Your task to perform on an android device: Search for vegetarian restaurants on Maps Image 0: 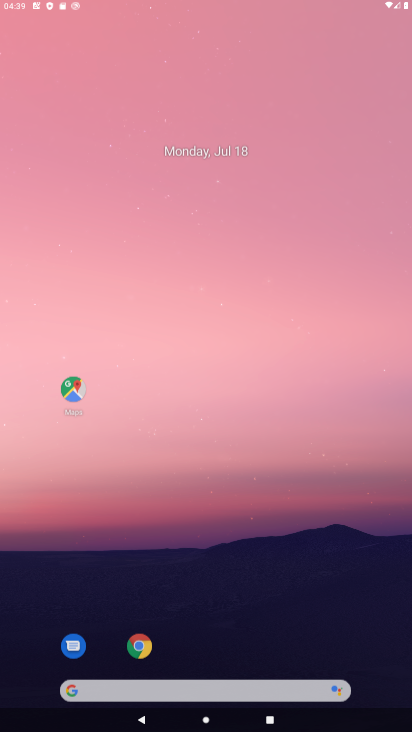
Step 0: press home button
Your task to perform on an android device: Search for vegetarian restaurants on Maps Image 1: 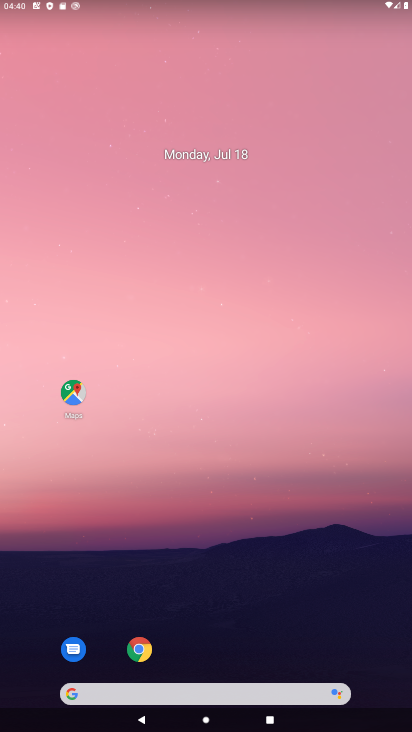
Step 1: click (72, 383)
Your task to perform on an android device: Search for vegetarian restaurants on Maps Image 2: 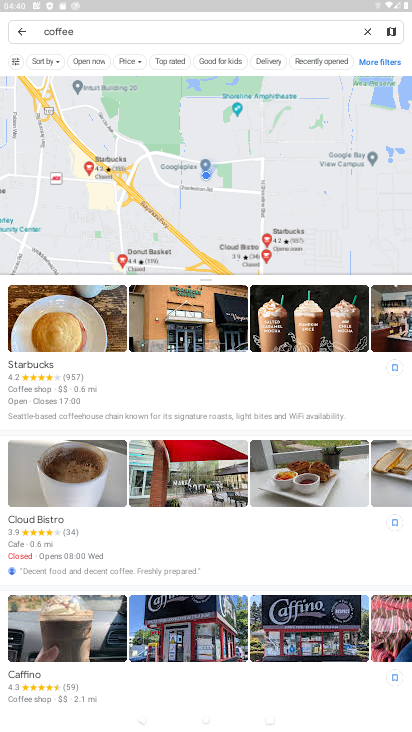
Step 2: click (365, 39)
Your task to perform on an android device: Search for vegetarian restaurants on Maps Image 3: 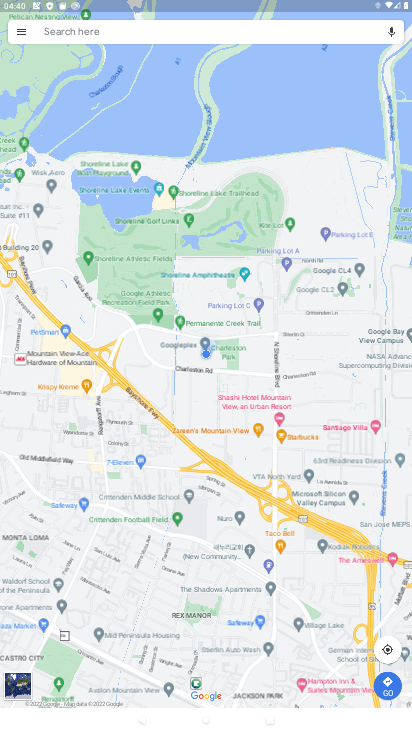
Step 3: click (234, 43)
Your task to perform on an android device: Search for vegetarian restaurants on Maps Image 4: 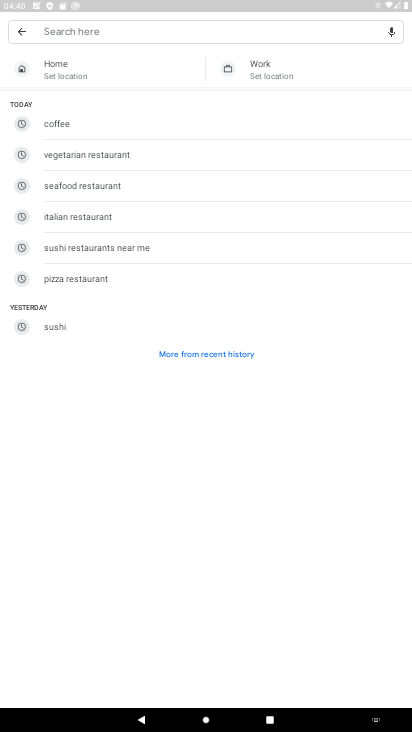
Step 4: type "vege"
Your task to perform on an android device: Search for vegetarian restaurants on Maps Image 5: 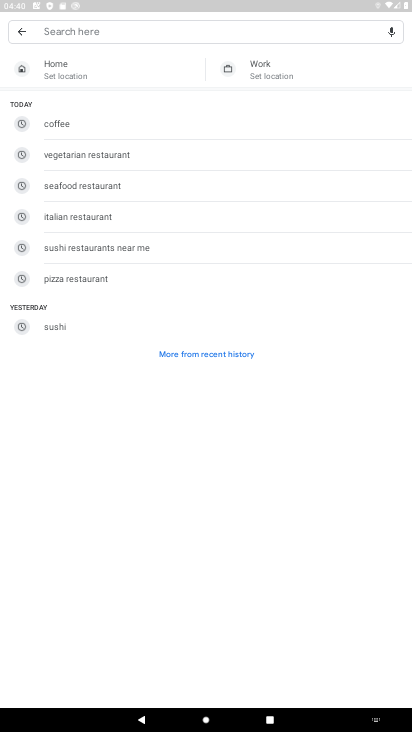
Step 5: click (193, 158)
Your task to perform on an android device: Search for vegetarian restaurants on Maps Image 6: 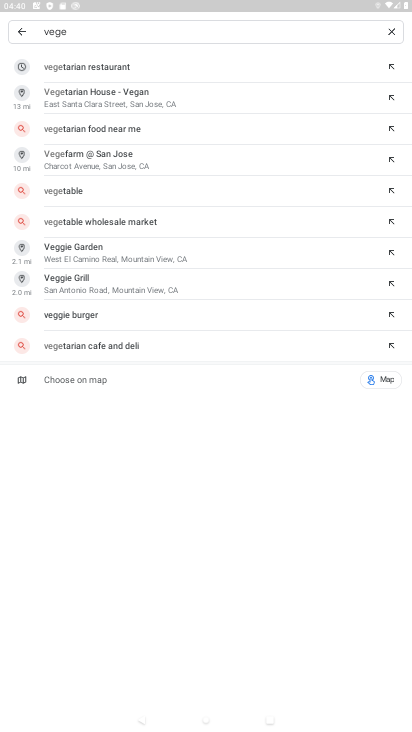
Step 6: click (138, 69)
Your task to perform on an android device: Search for vegetarian restaurants on Maps Image 7: 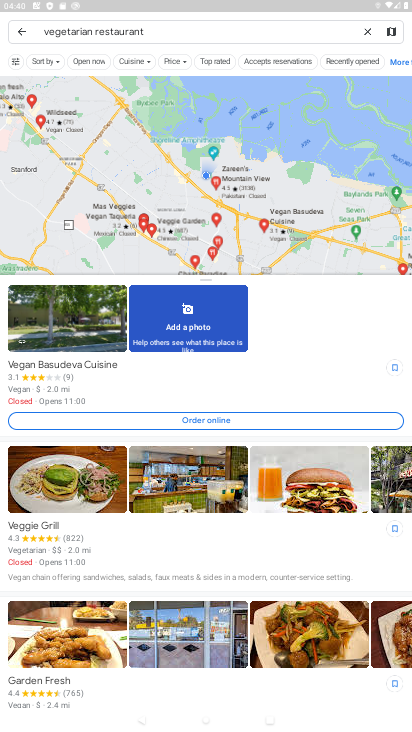
Step 7: task complete